Your task to perform on an android device: Open Wikipedia Image 0: 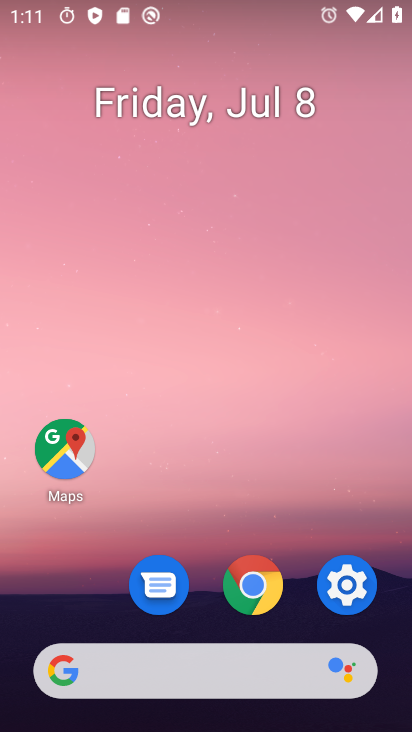
Step 0: press home button
Your task to perform on an android device: Open Wikipedia Image 1: 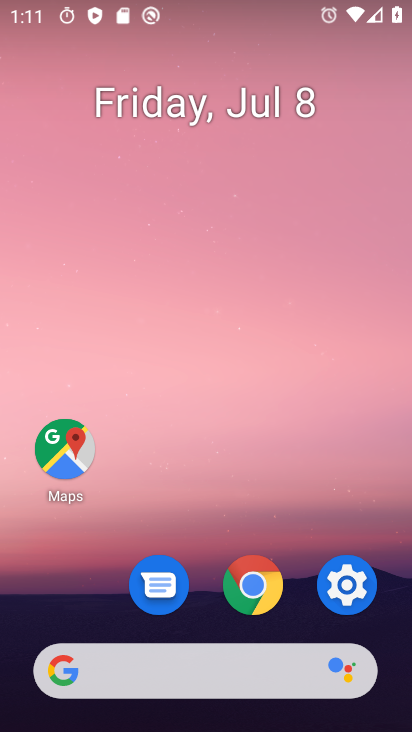
Step 1: click (272, 566)
Your task to perform on an android device: Open Wikipedia Image 2: 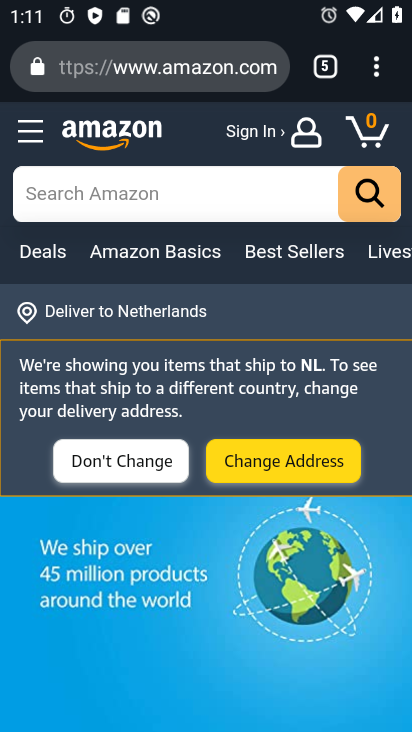
Step 2: click (381, 78)
Your task to perform on an android device: Open Wikipedia Image 3: 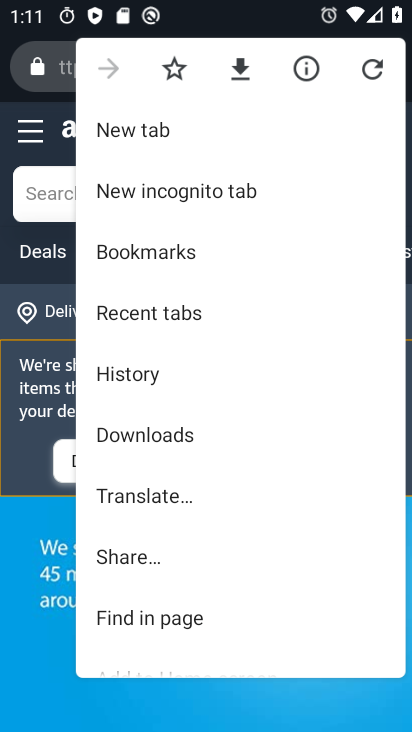
Step 3: click (176, 254)
Your task to perform on an android device: Open Wikipedia Image 4: 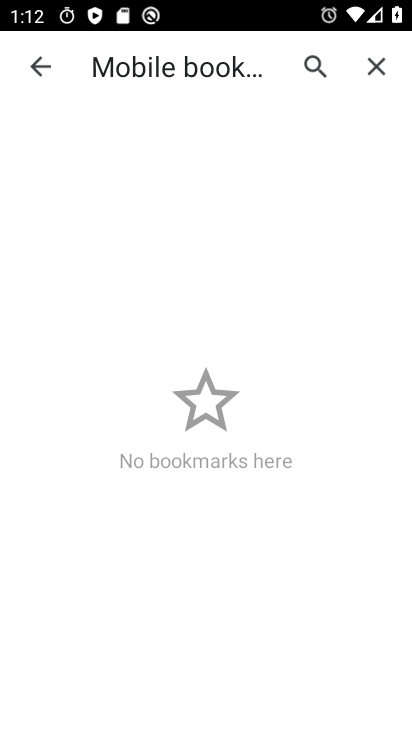
Step 4: click (40, 73)
Your task to perform on an android device: Open Wikipedia Image 5: 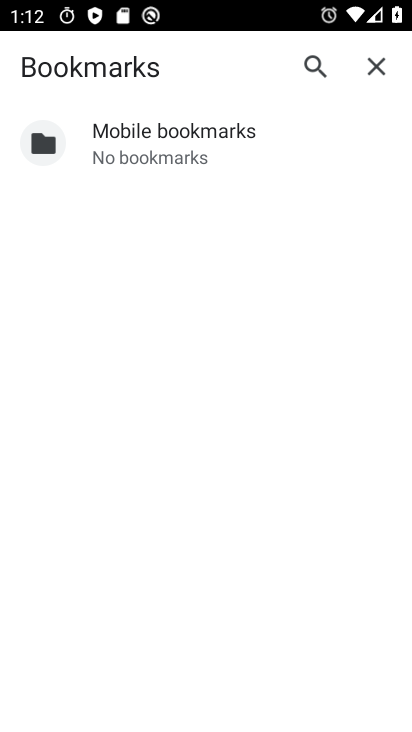
Step 5: click (370, 65)
Your task to perform on an android device: Open Wikipedia Image 6: 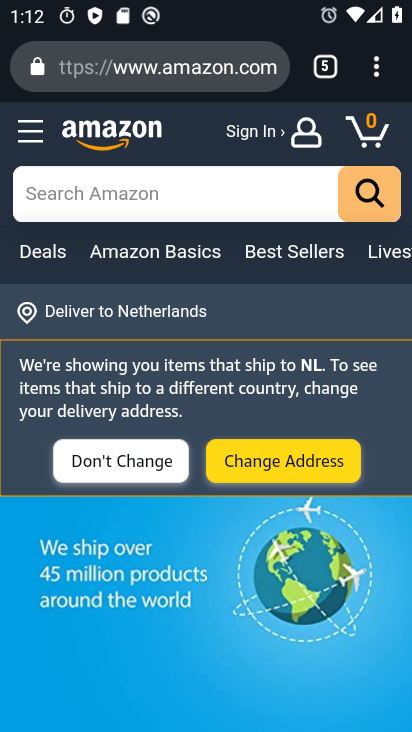
Step 6: click (331, 67)
Your task to perform on an android device: Open Wikipedia Image 7: 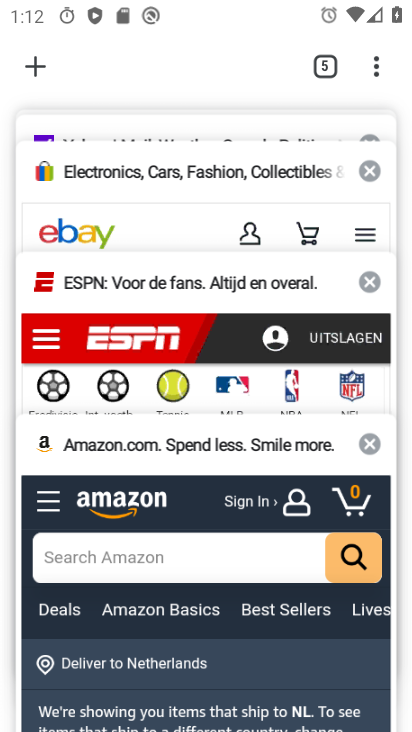
Step 7: click (41, 68)
Your task to perform on an android device: Open Wikipedia Image 8: 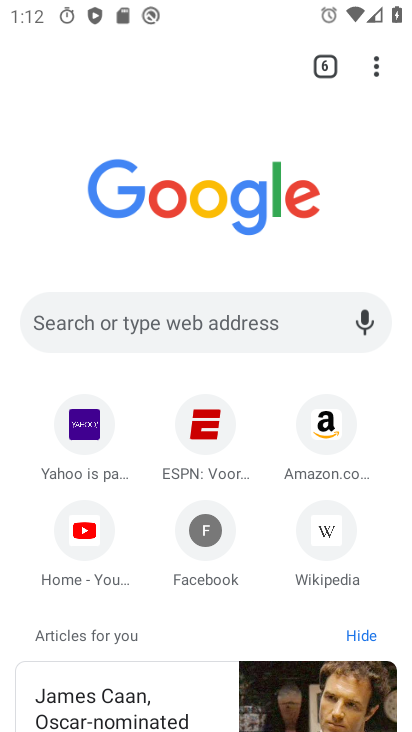
Step 8: click (322, 553)
Your task to perform on an android device: Open Wikipedia Image 9: 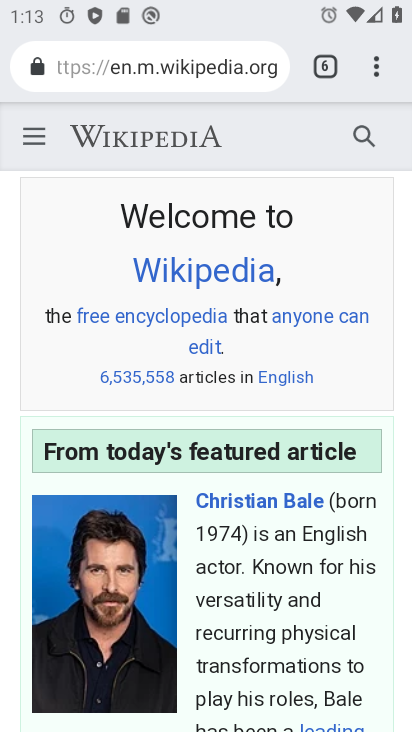
Step 9: task complete